Your task to perform on an android device: Search for Mexican restaurants on Maps Image 0: 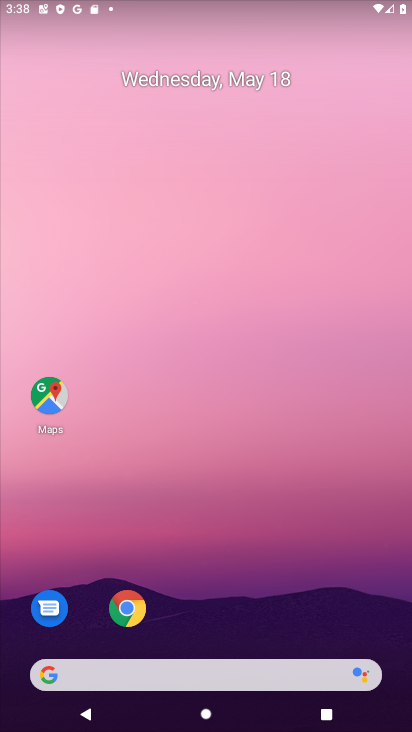
Step 0: click (37, 405)
Your task to perform on an android device: Search for Mexican restaurants on Maps Image 1: 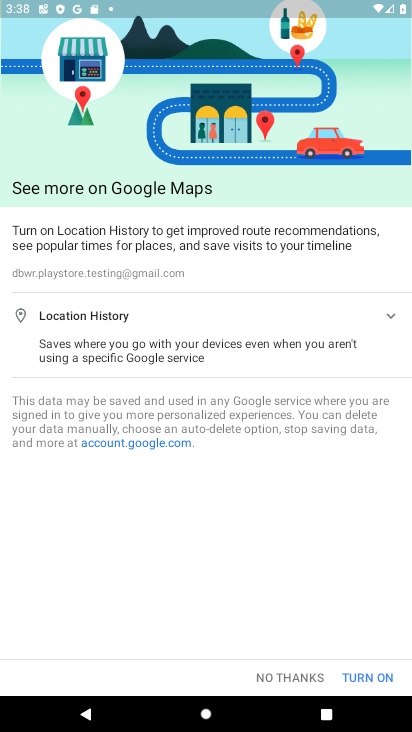
Step 1: press back button
Your task to perform on an android device: Search for Mexican restaurants on Maps Image 2: 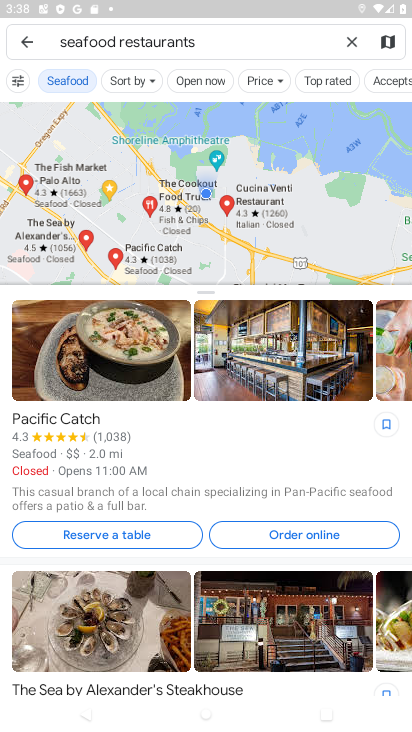
Step 2: click (359, 41)
Your task to perform on an android device: Search for Mexican restaurants on Maps Image 3: 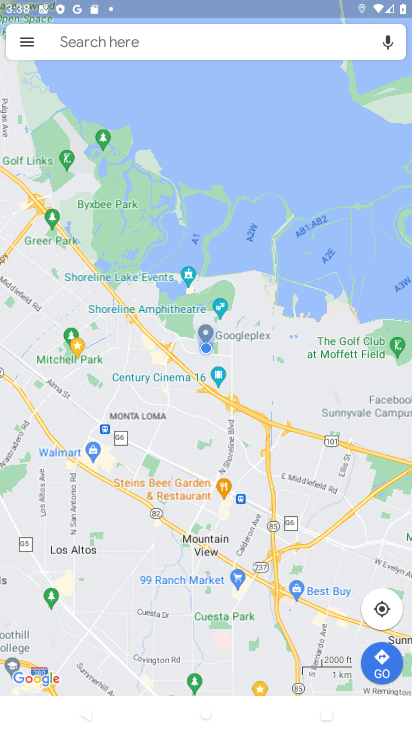
Step 3: click (317, 40)
Your task to perform on an android device: Search for Mexican restaurants on Maps Image 4: 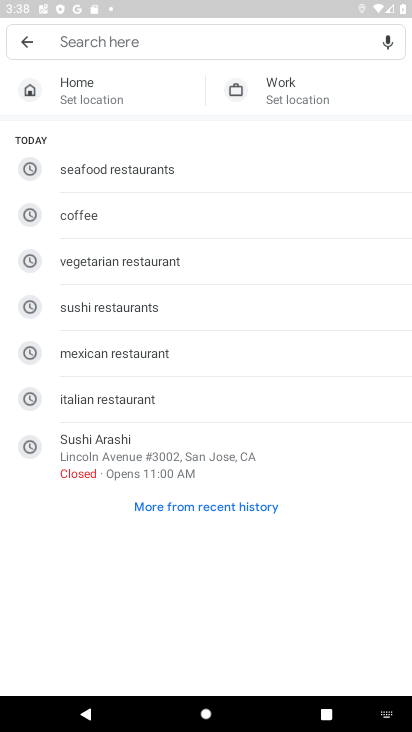
Step 4: click (161, 362)
Your task to perform on an android device: Search for Mexican restaurants on Maps Image 5: 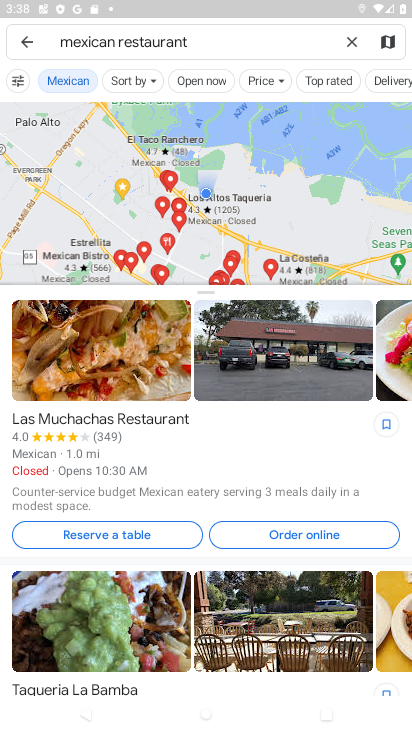
Step 5: task complete